Your task to perform on an android device: toggle location history Image 0: 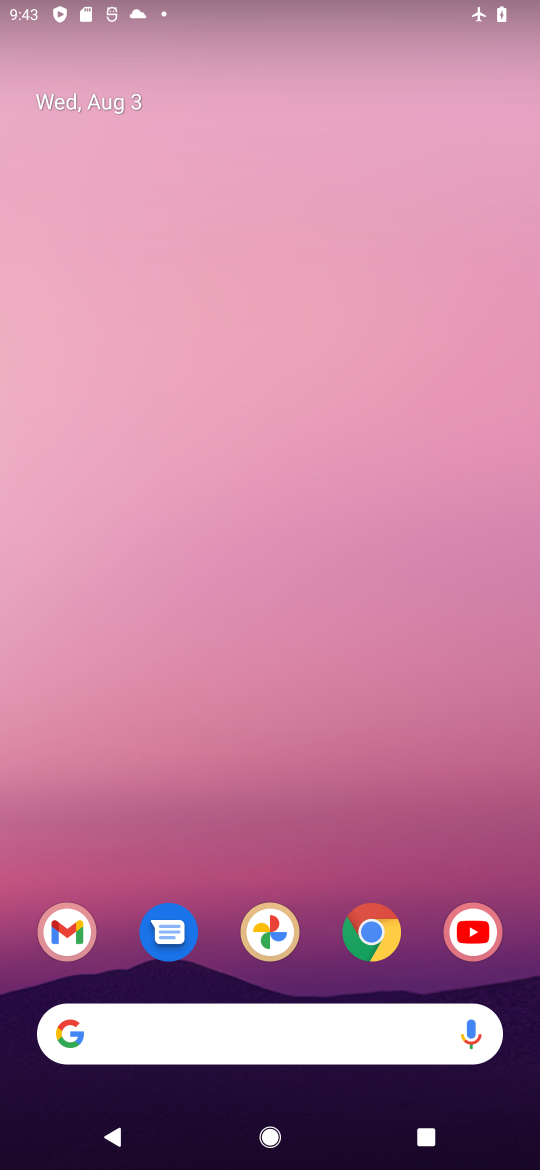
Step 0: drag from (314, 870) to (291, 29)
Your task to perform on an android device: toggle location history Image 1: 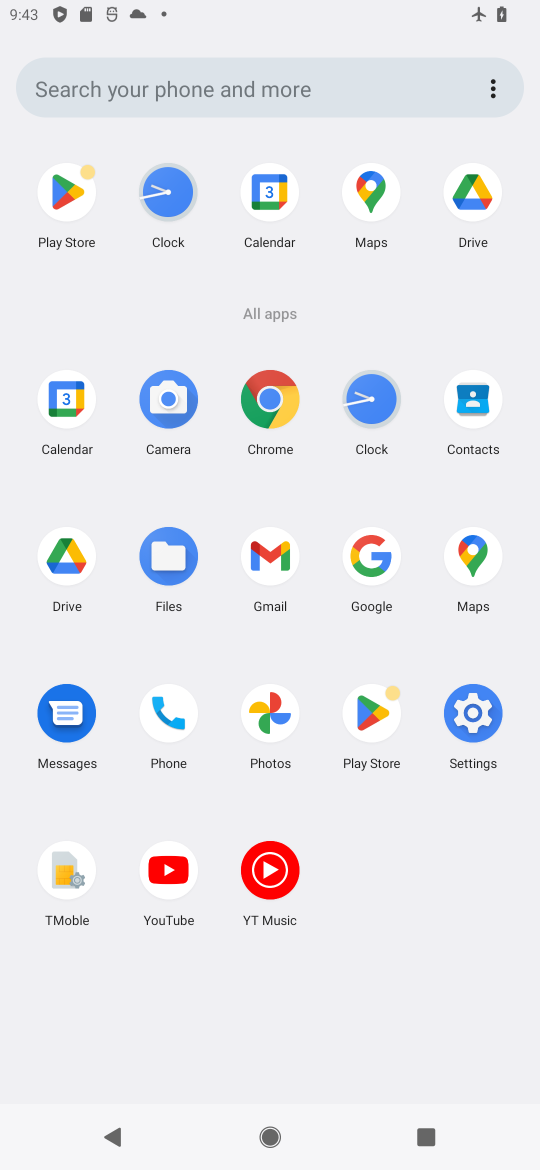
Step 1: drag from (324, 975) to (319, 745)
Your task to perform on an android device: toggle location history Image 2: 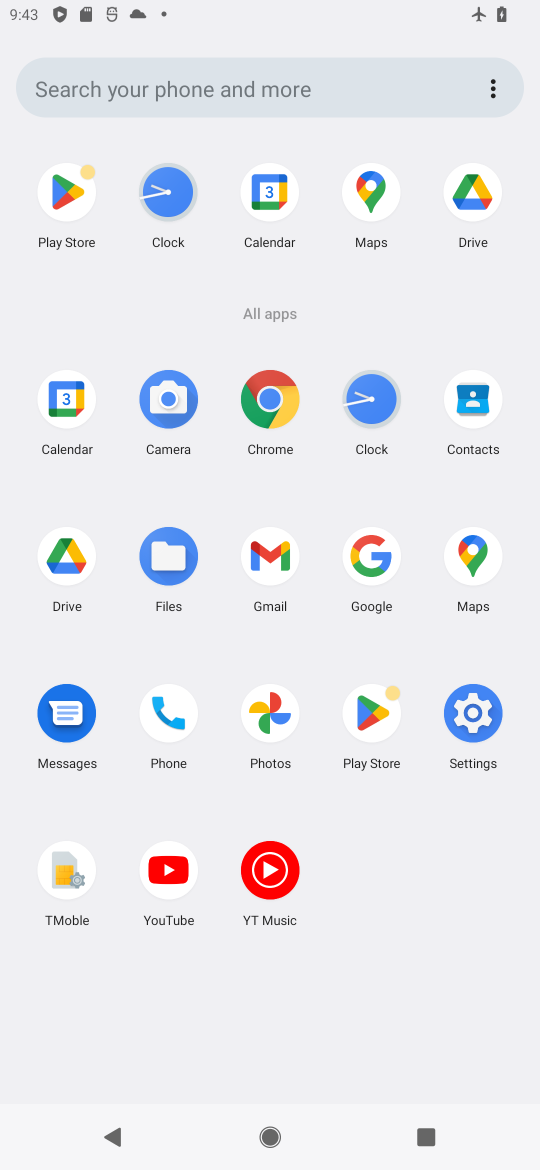
Step 2: click (379, 176)
Your task to perform on an android device: toggle location history Image 3: 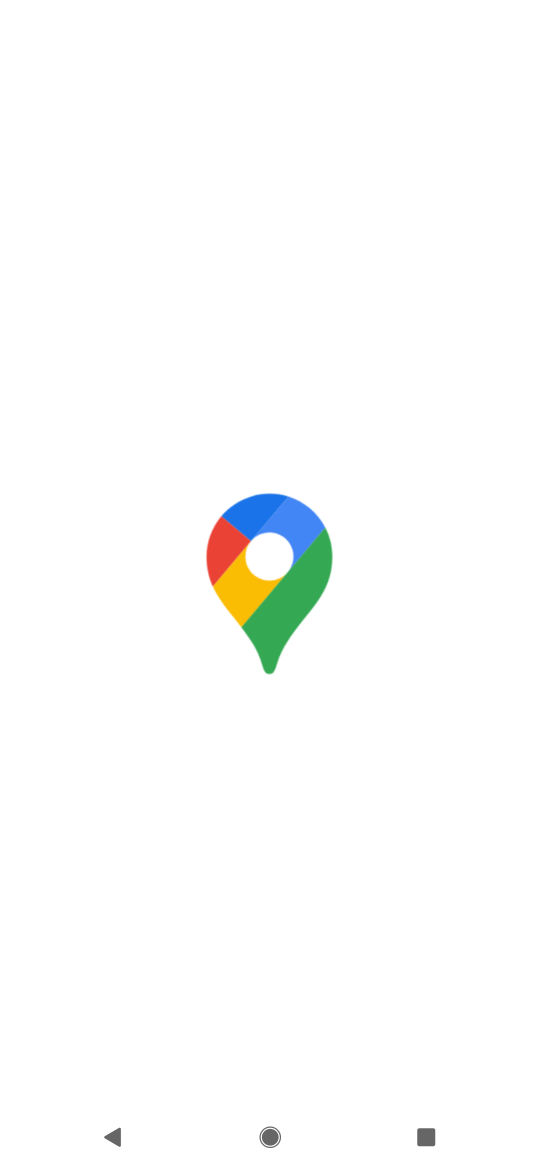
Step 3: task complete